Your task to perform on an android device: Open sound settings Image 0: 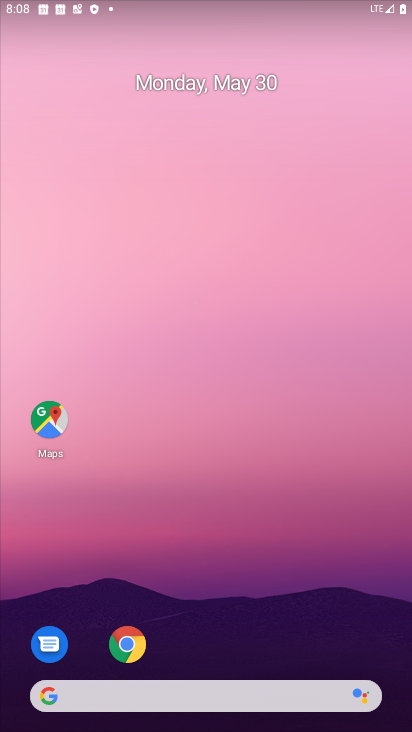
Step 0: drag from (258, 599) to (208, 84)
Your task to perform on an android device: Open sound settings Image 1: 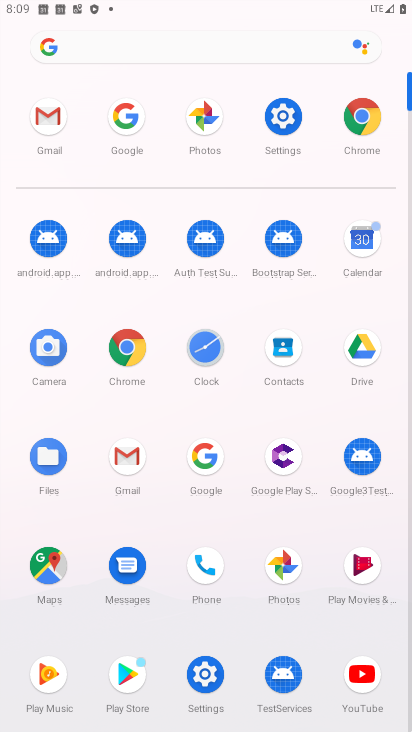
Step 1: click (283, 115)
Your task to perform on an android device: Open sound settings Image 2: 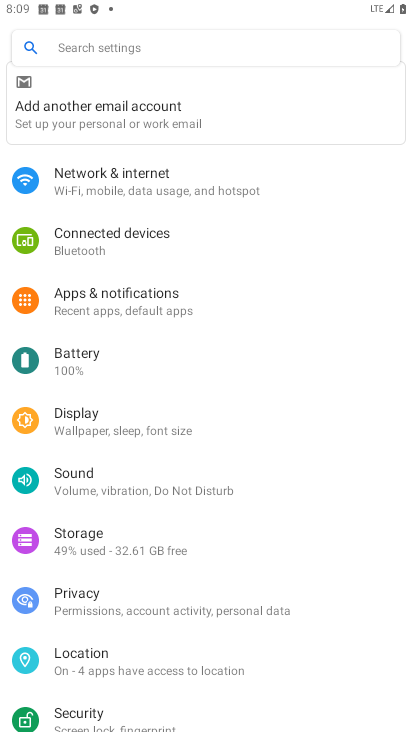
Step 2: click (78, 484)
Your task to perform on an android device: Open sound settings Image 3: 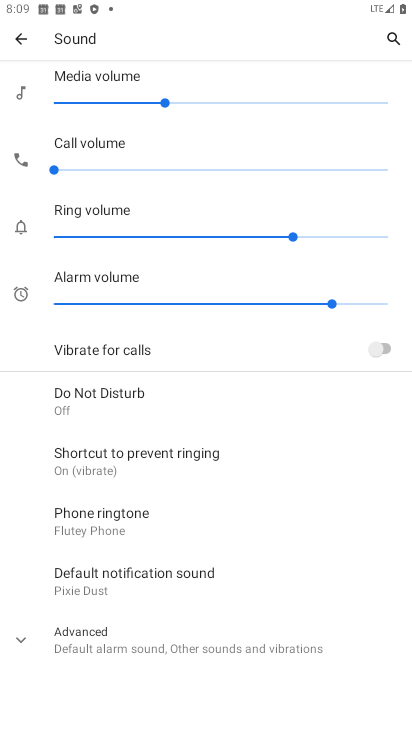
Step 3: task complete